Your task to perform on an android device: Go to Wikipedia Image 0: 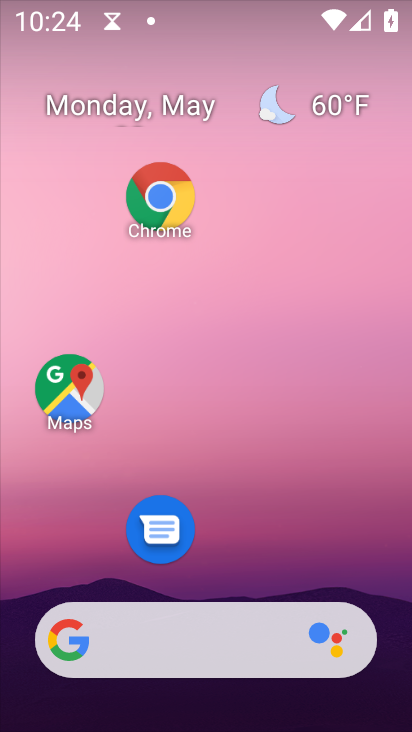
Step 0: click (156, 189)
Your task to perform on an android device: Go to Wikipedia Image 1: 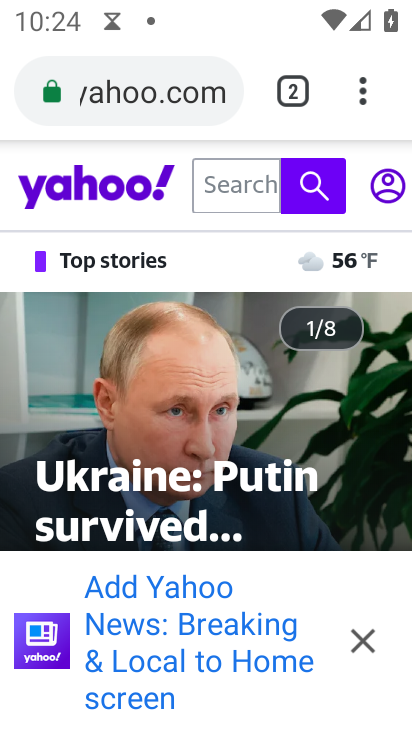
Step 1: press back button
Your task to perform on an android device: Go to Wikipedia Image 2: 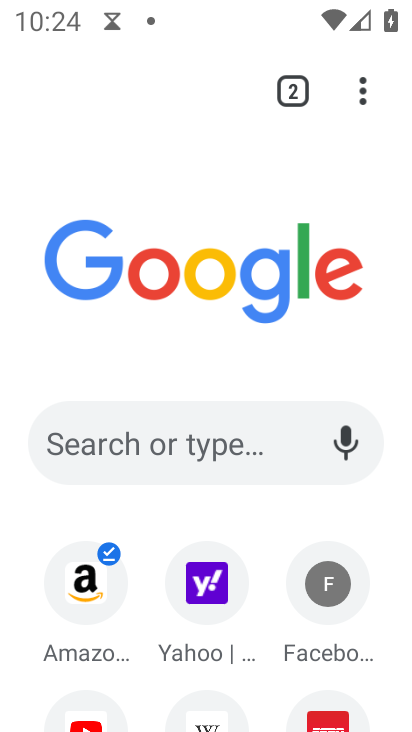
Step 2: click (206, 709)
Your task to perform on an android device: Go to Wikipedia Image 3: 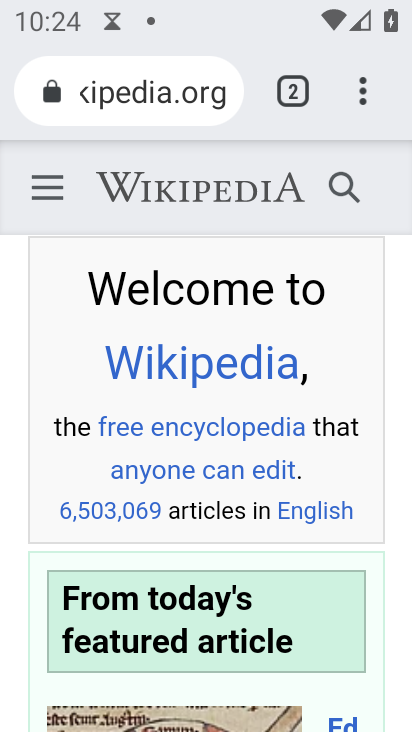
Step 3: task complete